Your task to perform on an android device: check out phone information Image 0: 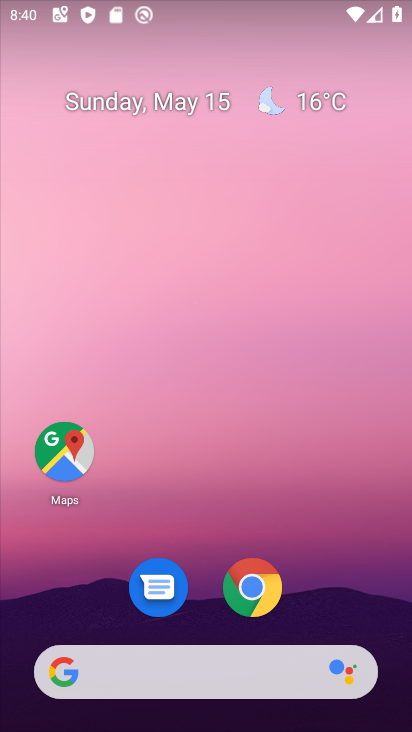
Step 0: drag from (317, 512) to (343, 39)
Your task to perform on an android device: check out phone information Image 1: 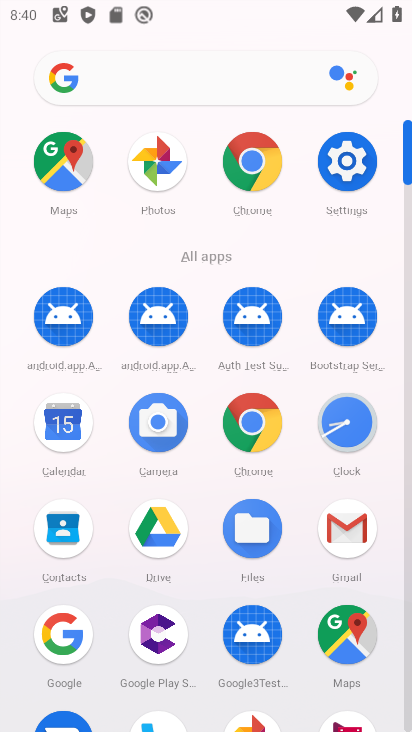
Step 1: drag from (177, 607) to (249, 243)
Your task to perform on an android device: check out phone information Image 2: 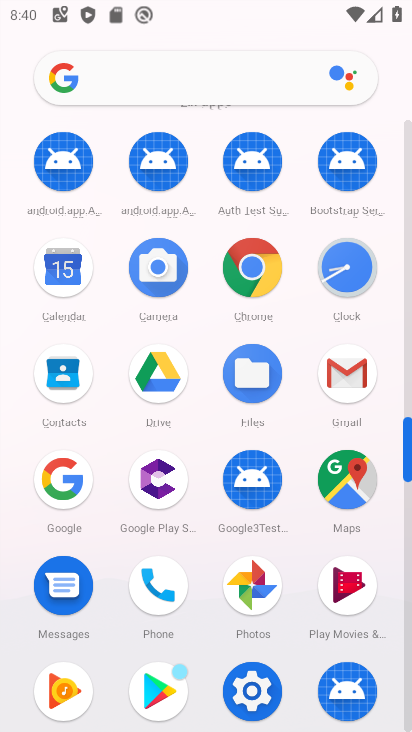
Step 2: click (173, 580)
Your task to perform on an android device: check out phone information Image 3: 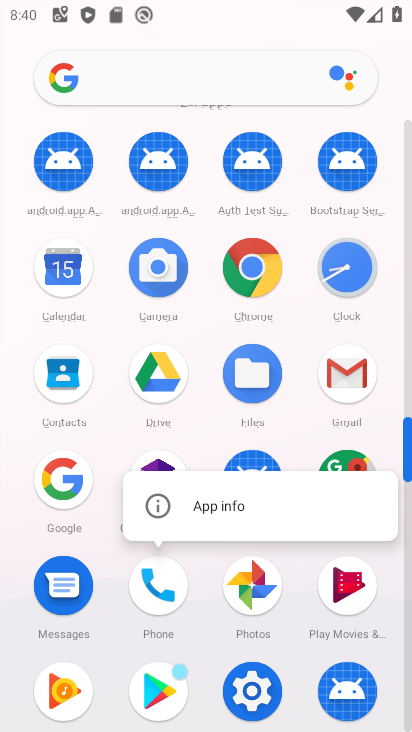
Step 3: click (243, 515)
Your task to perform on an android device: check out phone information Image 4: 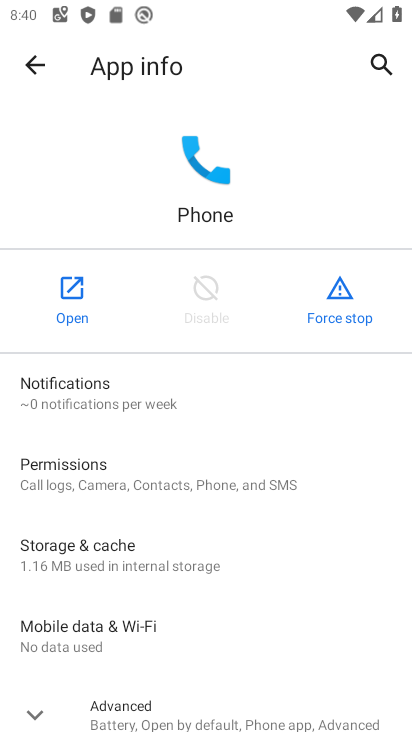
Step 4: task complete